Your task to perform on an android device: turn on improve location accuracy Image 0: 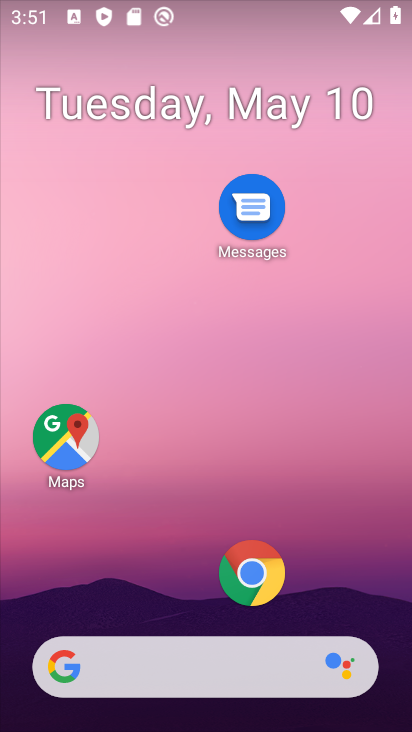
Step 0: drag from (181, 588) to (186, 208)
Your task to perform on an android device: turn on improve location accuracy Image 1: 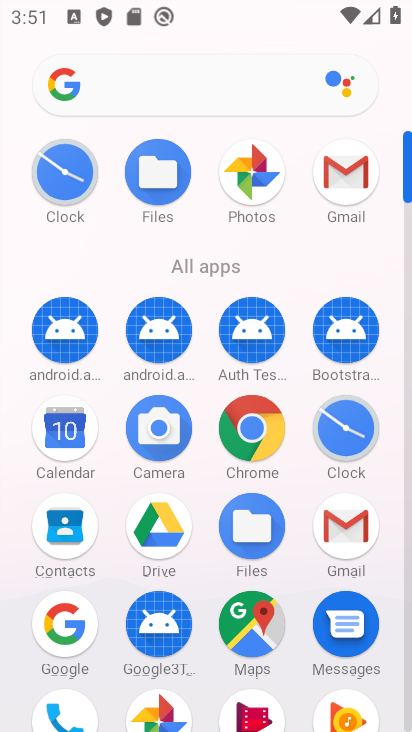
Step 1: drag from (201, 520) to (191, 280)
Your task to perform on an android device: turn on improve location accuracy Image 2: 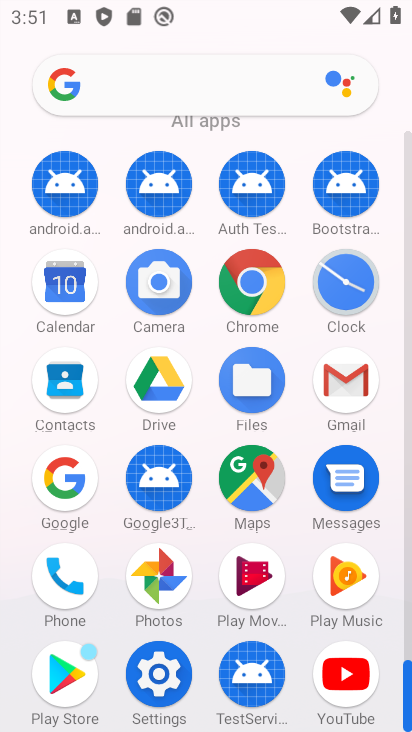
Step 2: click (158, 657)
Your task to perform on an android device: turn on improve location accuracy Image 3: 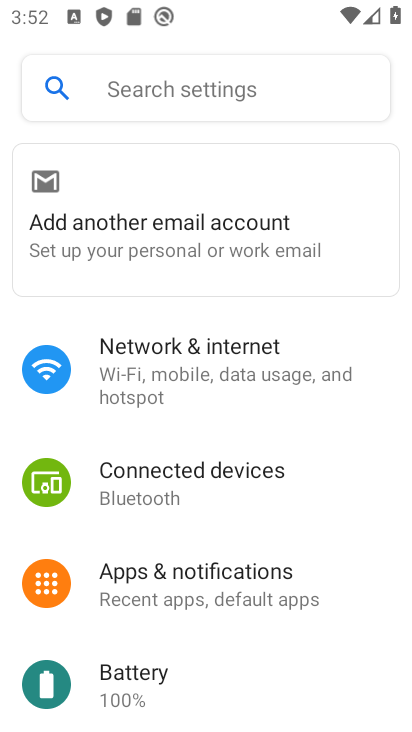
Step 3: drag from (185, 658) to (187, 351)
Your task to perform on an android device: turn on improve location accuracy Image 4: 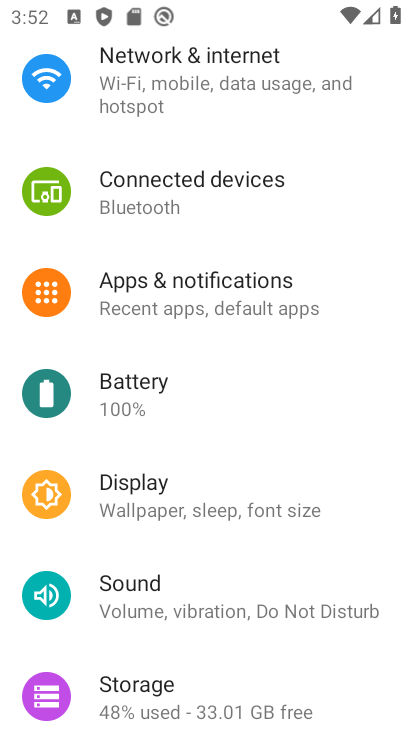
Step 4: drag from (175, 670) to (148, 462)
Your task to perform on an android device: turn on improve location accuracy Image 5: 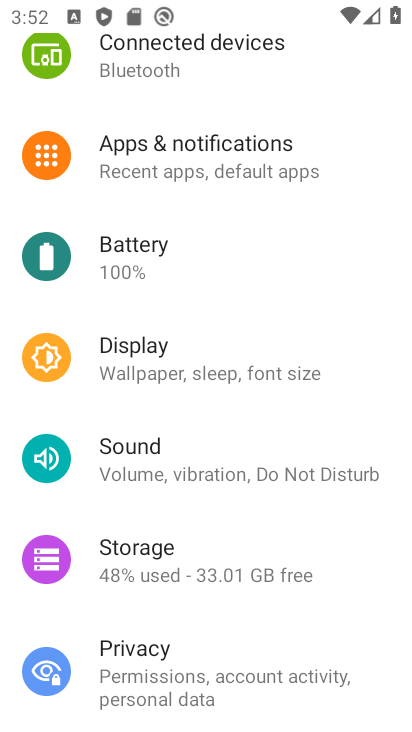
Step 5: drag from (157, 648) to (162, 439)
Your task to perform on an android device: turn on improve location accuracy Image 6: 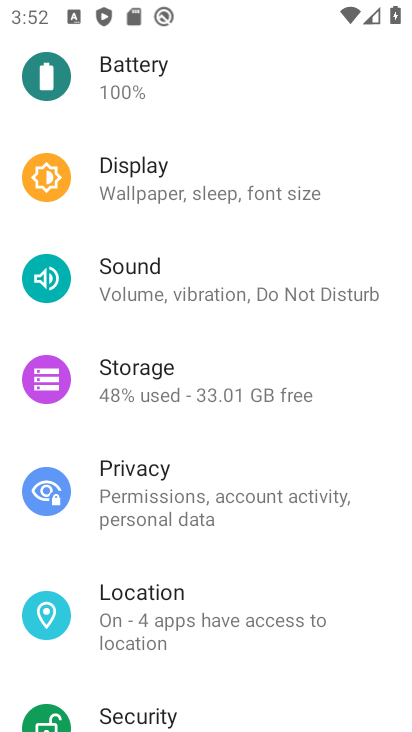
Step 6: click (174, 606)
Your task to perform on an android device: turn on improve location accuracy Image 7: 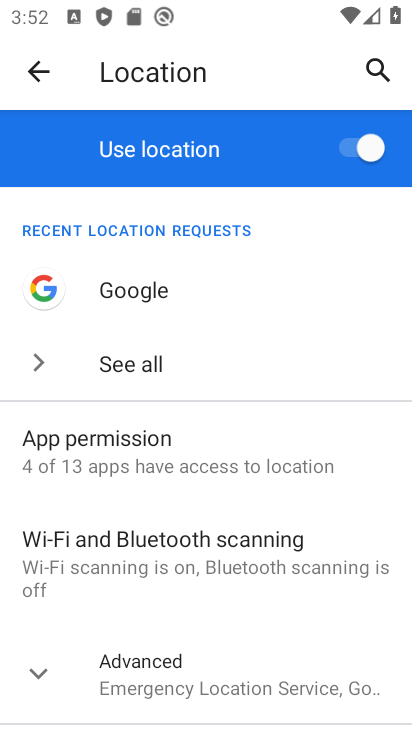
Step 7: drag from (239, 687) to (211, 384)
Your task to perform on an android device: turn on improve location accuracy Image 8: 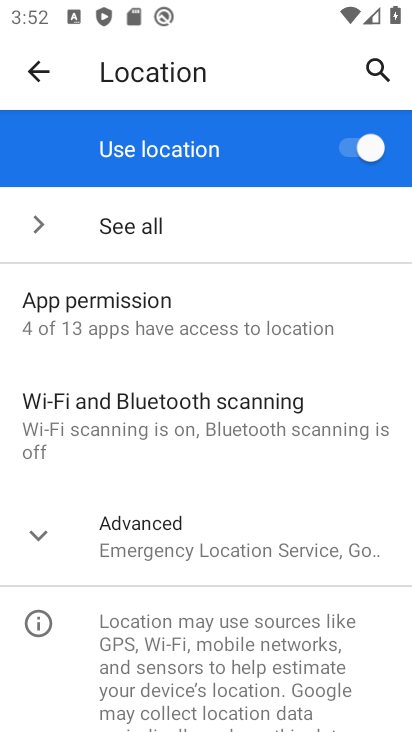
Step 8: click (93, 648)
Your task to perform on an android device: turn on improve location accuracy Image 9: 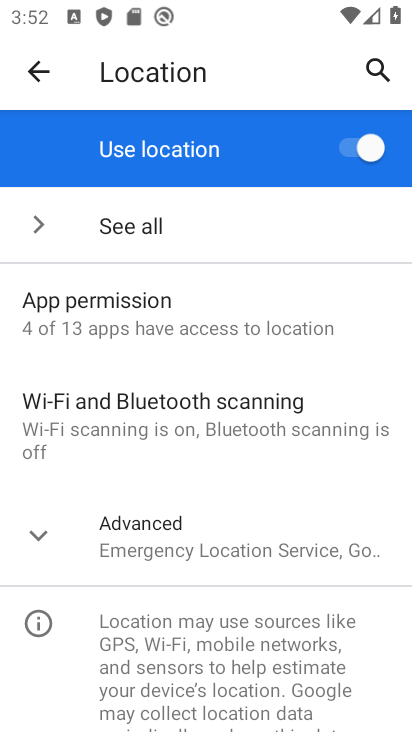
Step 9: click (97, 536)
Your task to perform on an android device: turn on improve location accuracy Image 10: 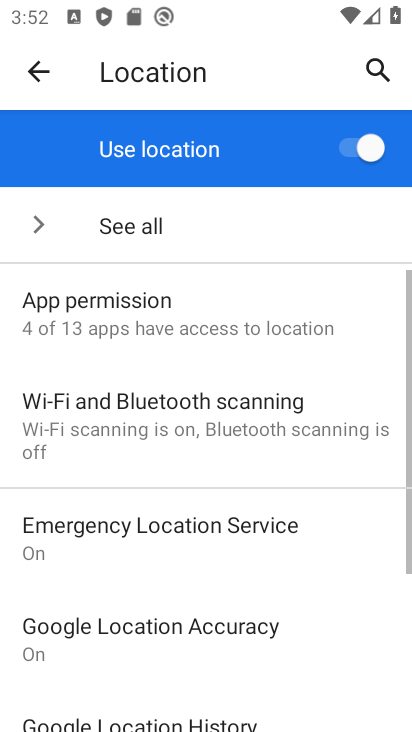
Step 10: drag from (224, 613) to (247, 421)
Your task to perform on an android device: turn on improve location accuracy Image 11: 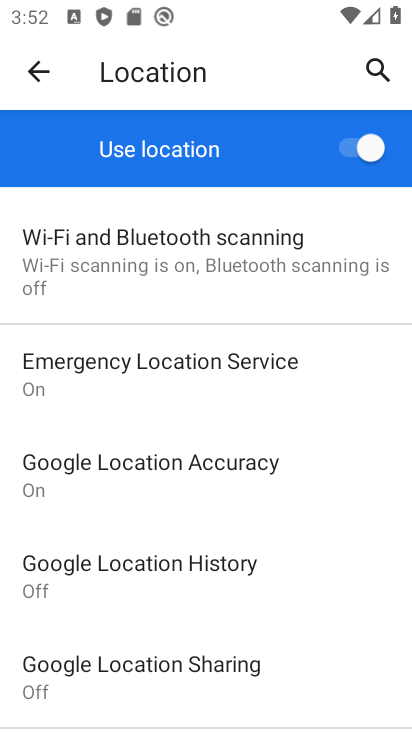
Step 11: click (222, 477)
Your task to perform on an android device: turn on improve location accuracy Image 12: 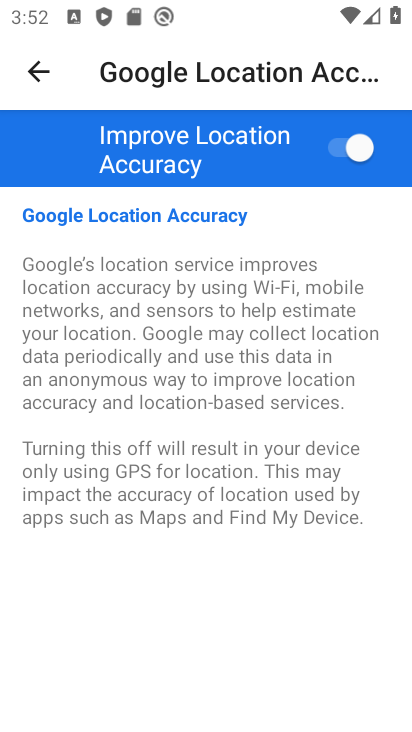
Step 12: task complete